Your task to perform on an android device: change the clock display to analog Image 0: 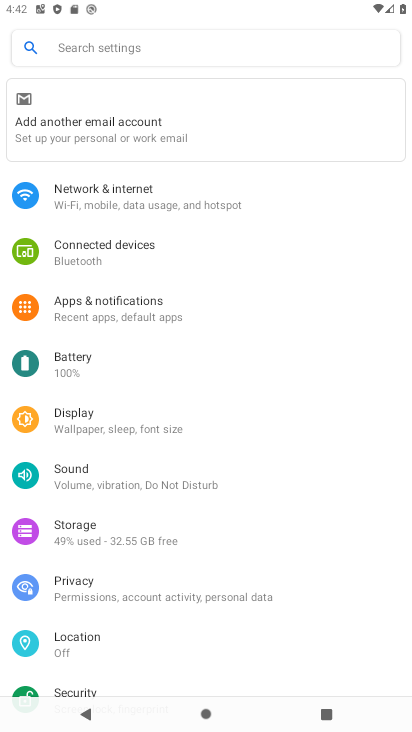
Step 0: press back button
Your task to perform on an android device: change the clock display to analog Image 1: 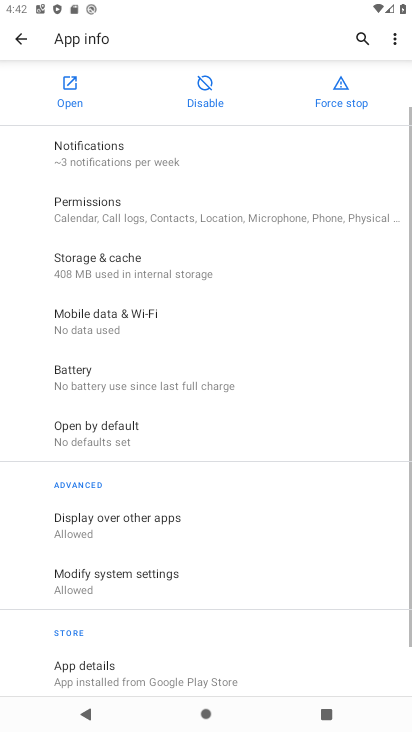
Step 1: press home button
Your task to perform on an android device: change the clock display to analog Image 2: 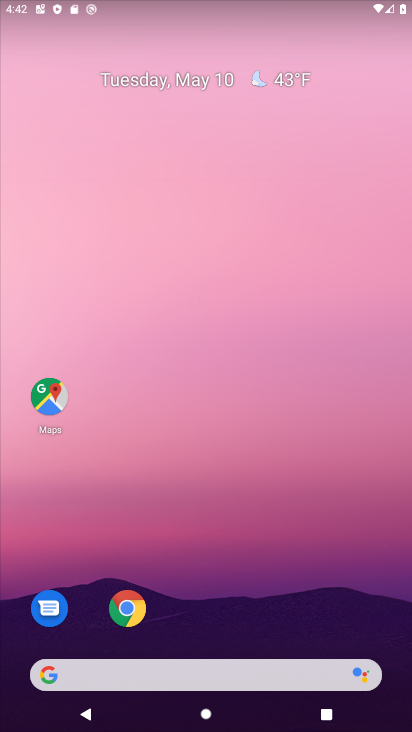
Step 2: drag from (245, 603) to (393, 40)
Your task to perform on an android device: change the clock display to analog Image 3: 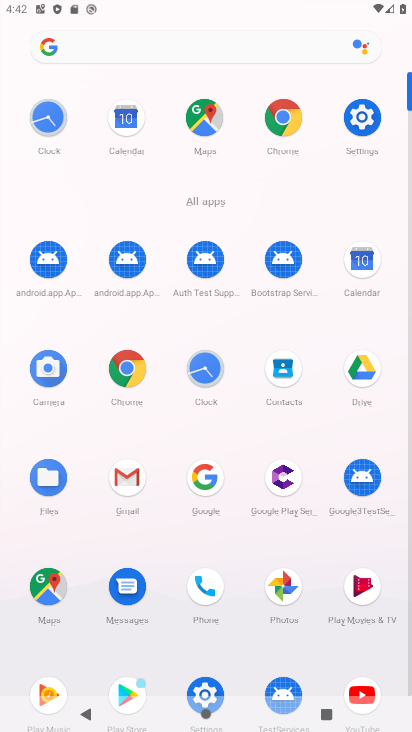
Step 3: click (210, 372)
Your task to perform on an android device: change the clock display to analog Image 4: 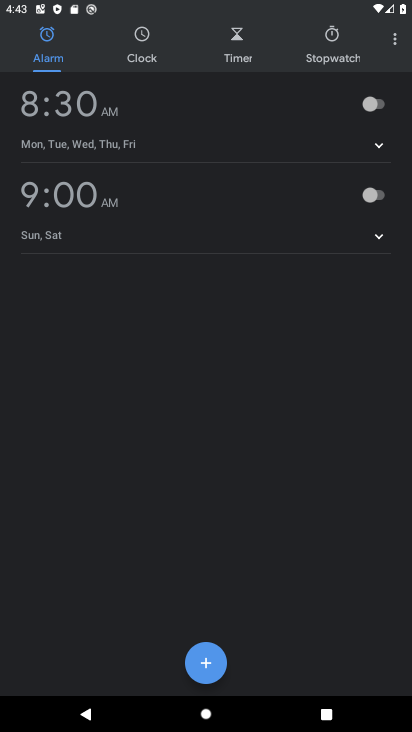
Step 4: click (395, 36)
Your task to perform on an android device: change the clock display to analog Image 5: 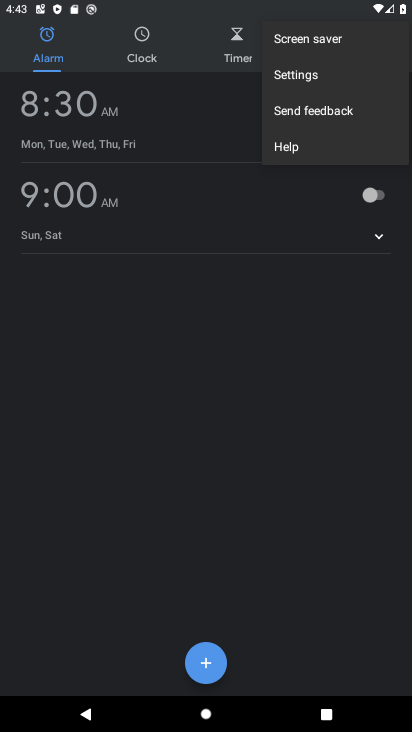
Step 5: click (290, 82)
Your task to perform on an android device: change the clock display to analog Image 6: 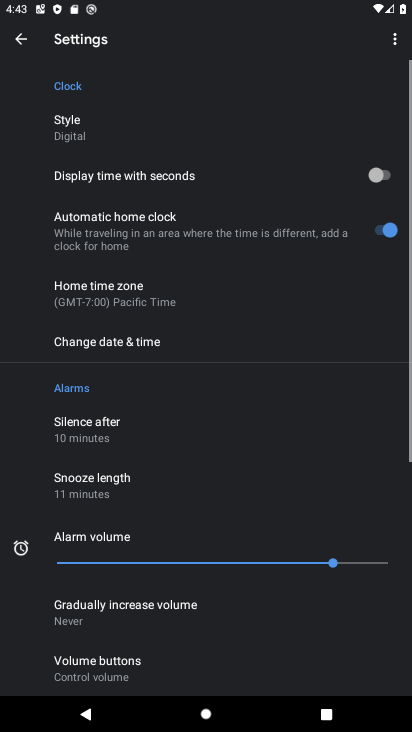
Step 6: click (94, 122)
Your task to perform on an android device: change the clock display to analog Image 7: 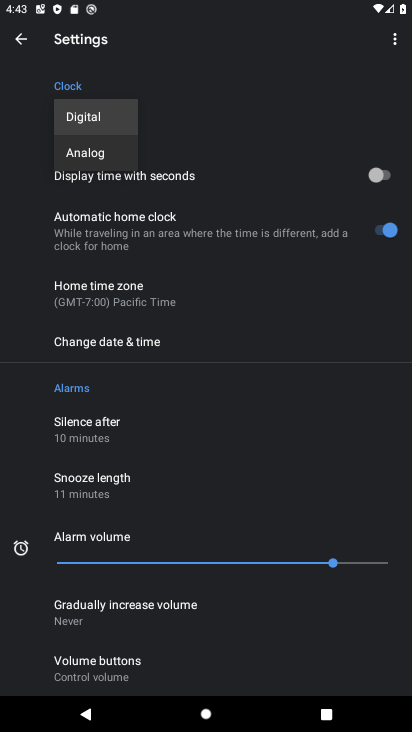
Step 7: click (103, 164)
Your task to perform on an android device: change the clock display to analog Image 8: 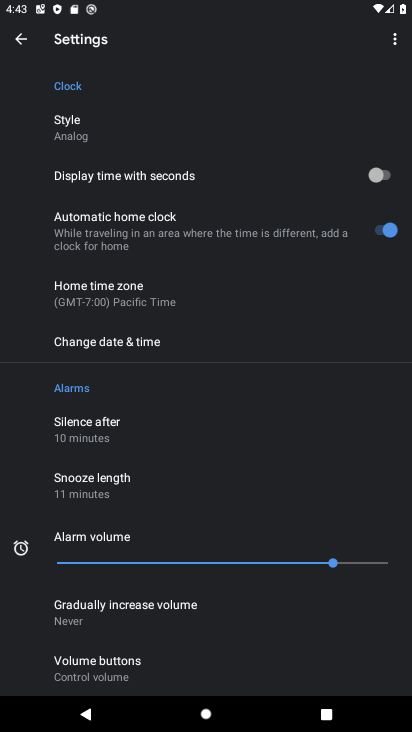
Step 8: task complete